Your task to perform on an android device: see sites visited before in the chrome app Image 0: 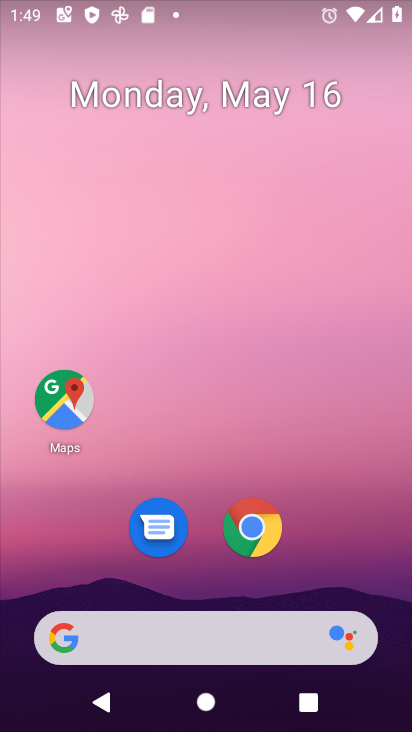
Step 0: click (271, 540)
Your task to perform on an android device: see sites visited before in the chrome app Image 1: 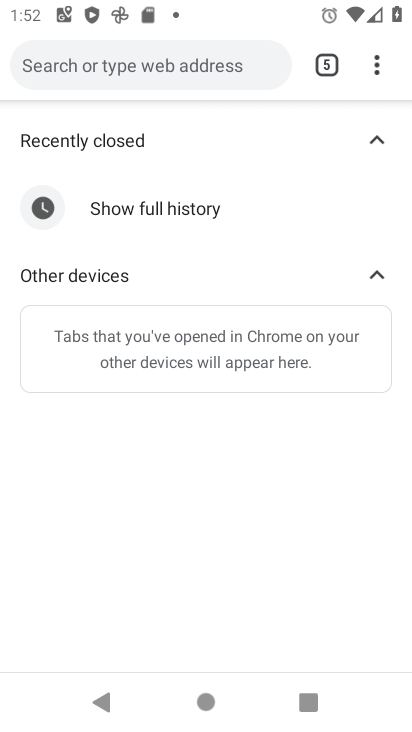
Step 1: task complete